Your task to perform on an android device: delete browsing data in the chrome app Image 0: 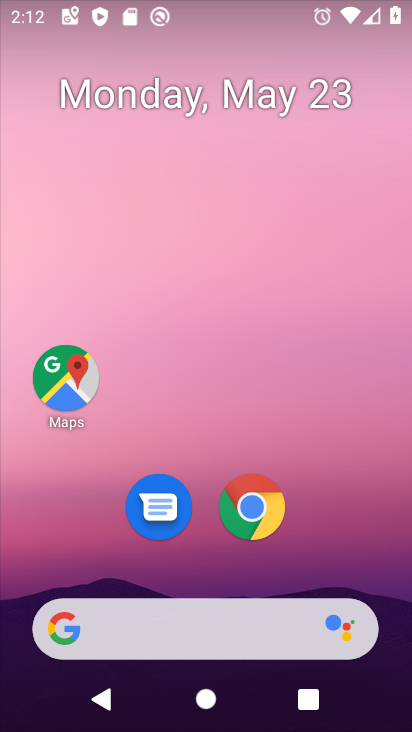
Step 0: click (254, 508)
Your task to perform on an android device: delete browsing data in the chrome app Image 1: 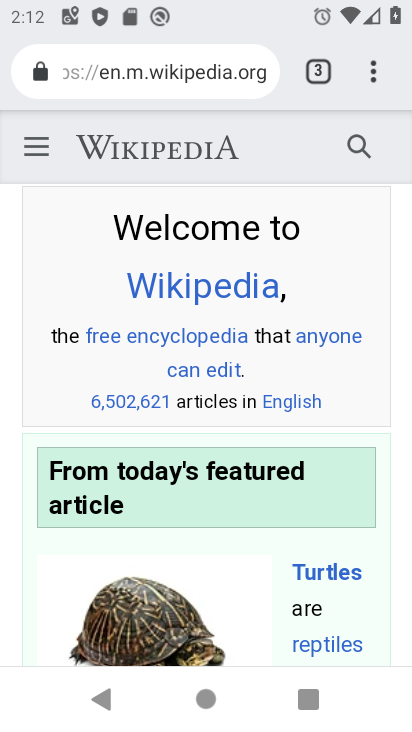
Step 1: click (364, 78)
Your task to perform on an android device: delete browsing data in the chrome app Image 2: 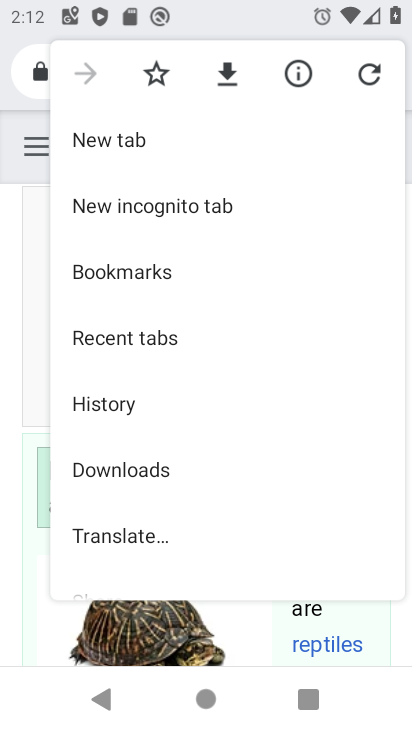
Step 2: click (111, 404)
Your task to perform on an android device: delete browsing data in the chrome app Image 3: 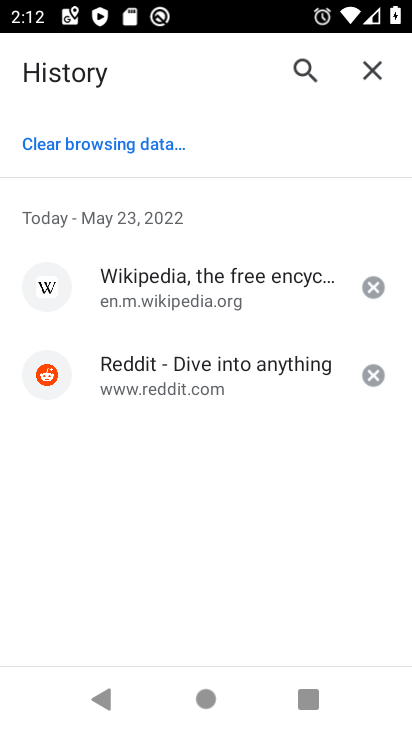
Step 3: click (147, 137)
Your task to perform on an android device: delete browsing data in the chrome app Image 4: 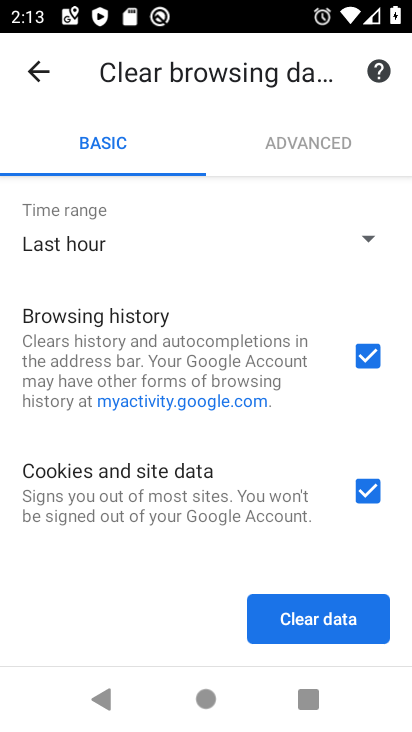
Step 4: click (365, 489)
Your task to perform on an android device: delete browsing data in the chrome app Image 5: 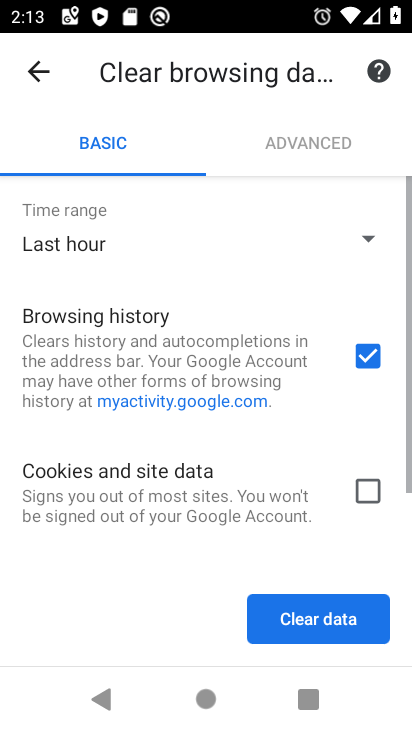
Step 5: drag from (240, 464) to (210, 244)
Your task to perform on an android device: delete browsing data in the chrome app Image 6: 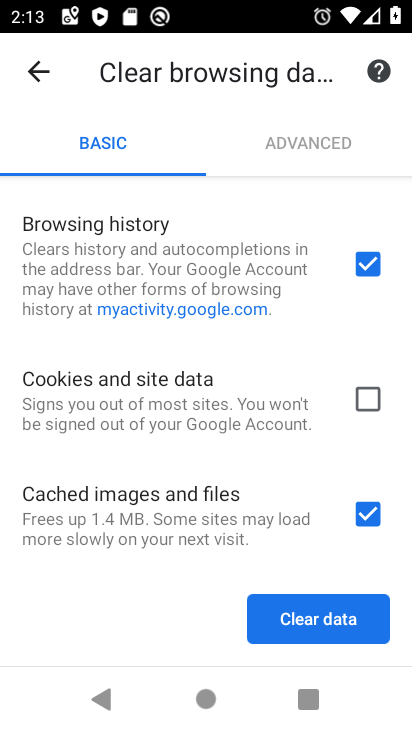
Step 6: click (372, 512)
Your task to perform on an android device: delete browsing data in the chrome app Image 7: 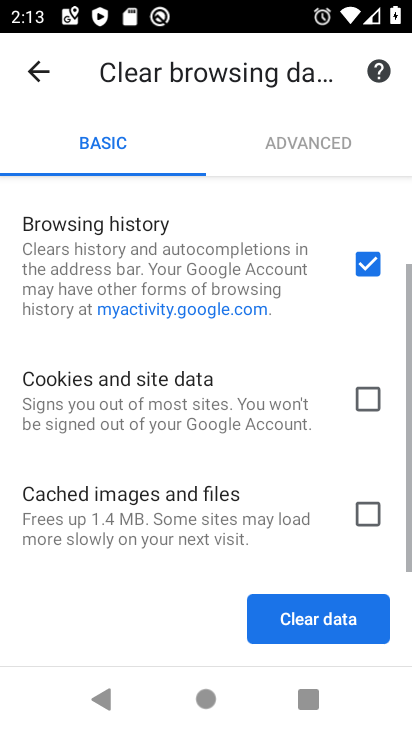
Step 7: click (329, 625)
Your task to perform on an android device: delete browsing data in the chrome app Image 8: 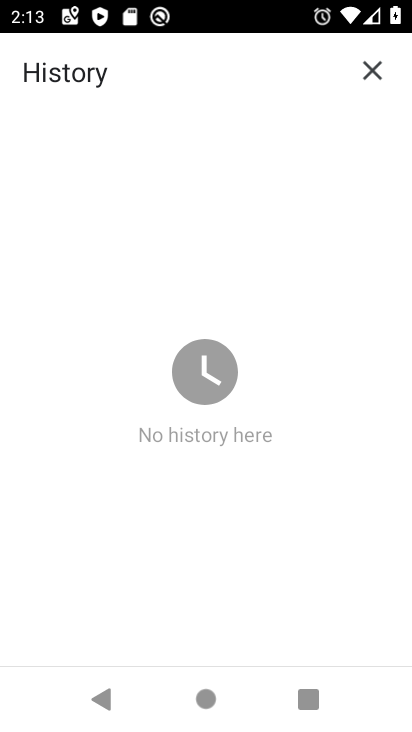
Step 8: task complete